Your task to perform on an android device: check data usage Image 0: 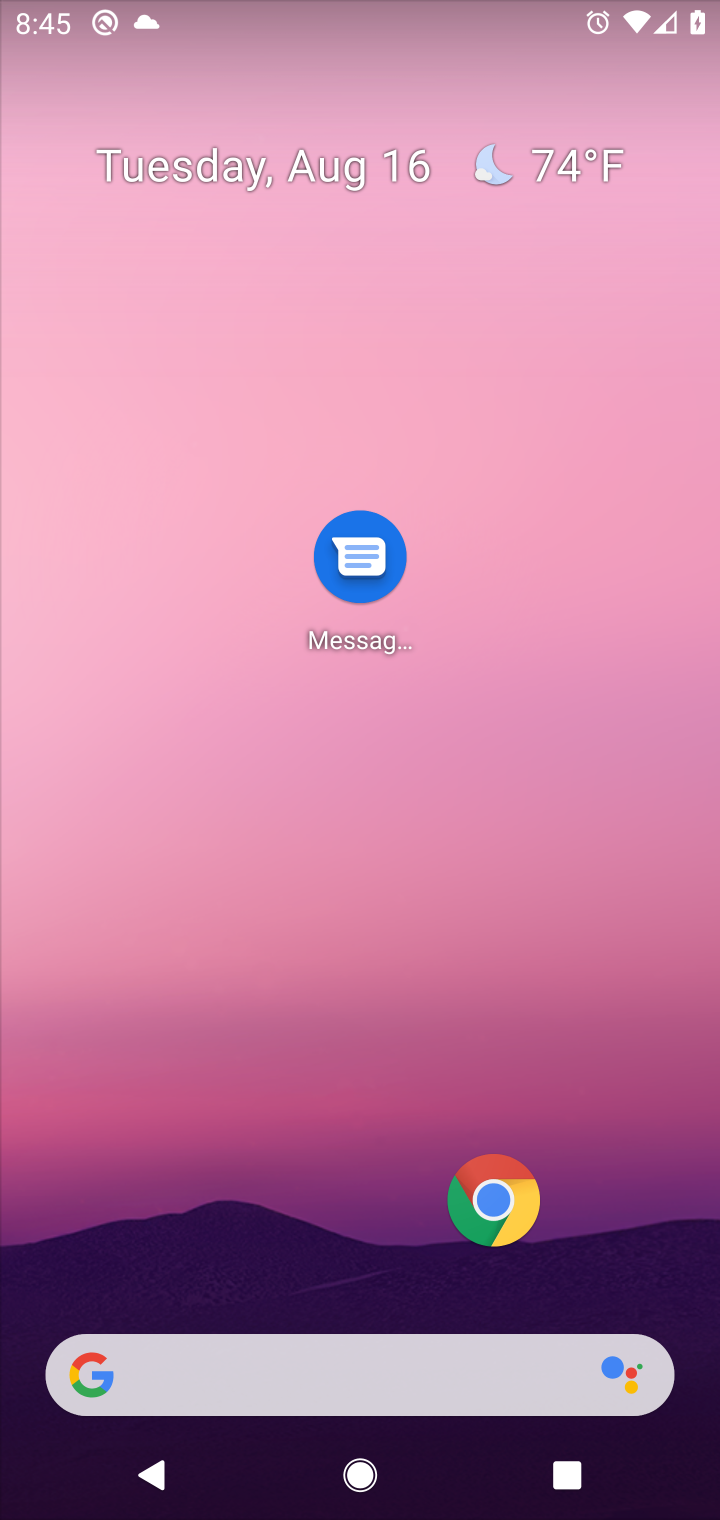
Step 0: drag from (147, 1129) to (206, 357)
Your task to perform on an android device: check data usage Image 1: 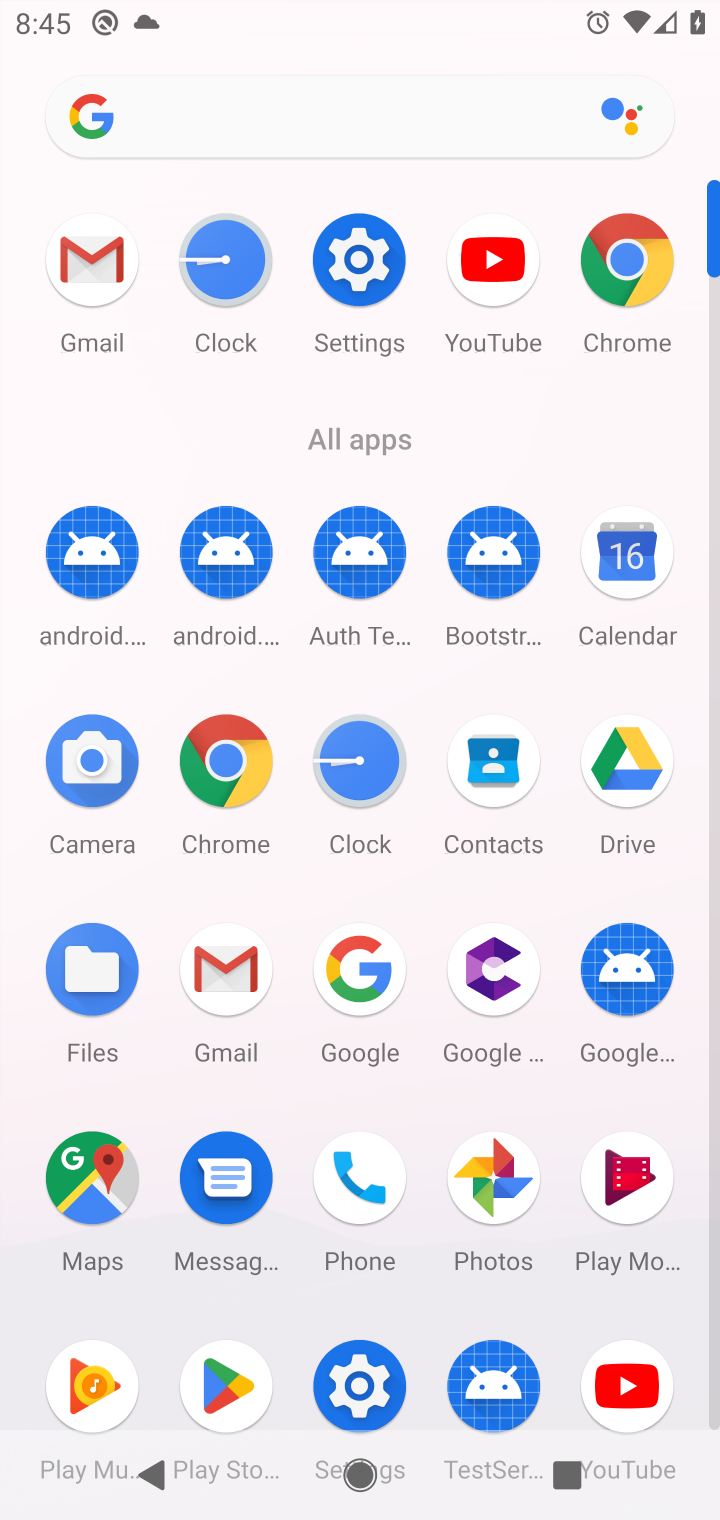
Step 1: click (347, 1387)
Your task to perform on an android device: check data usage Image 2: 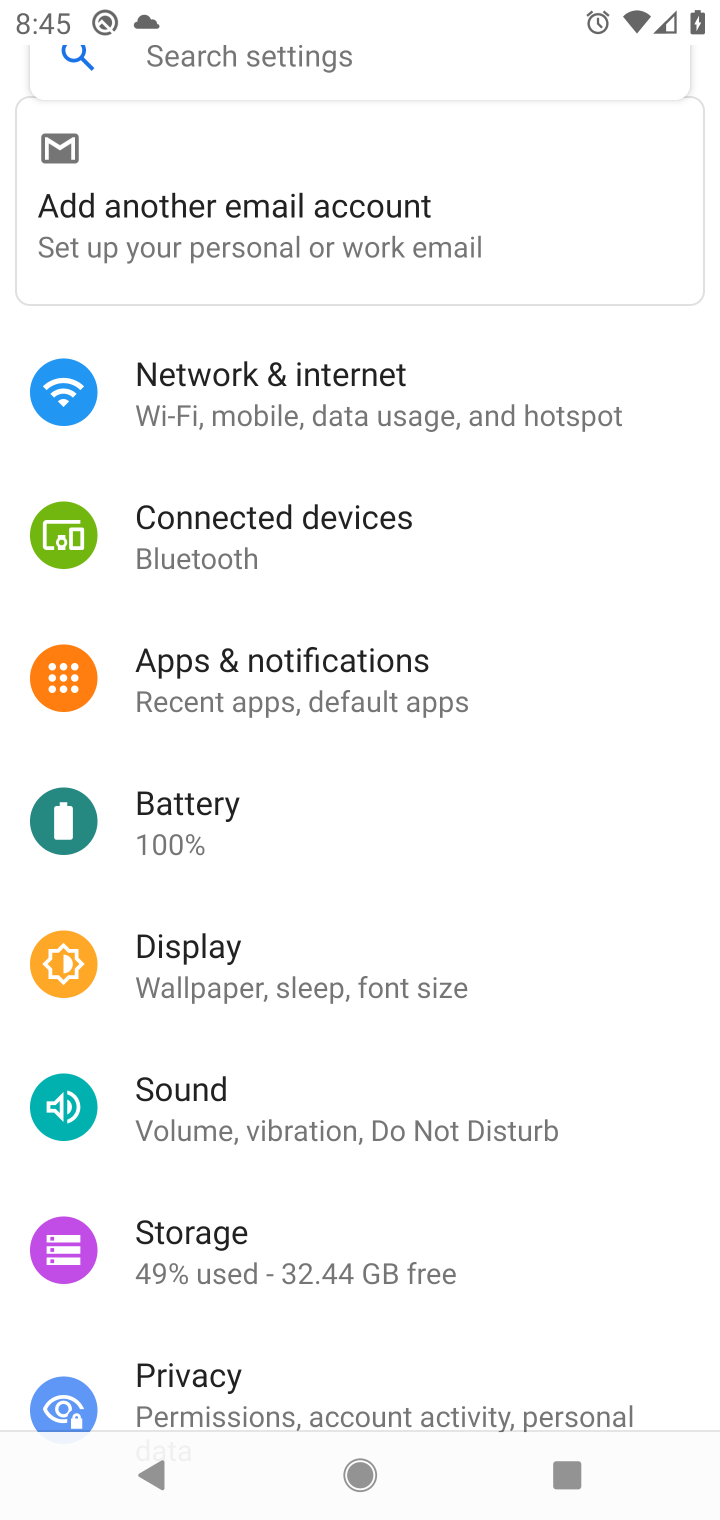
Step 2: click (311, 377)
Your task to perform on an android device: check data usage Image 3: 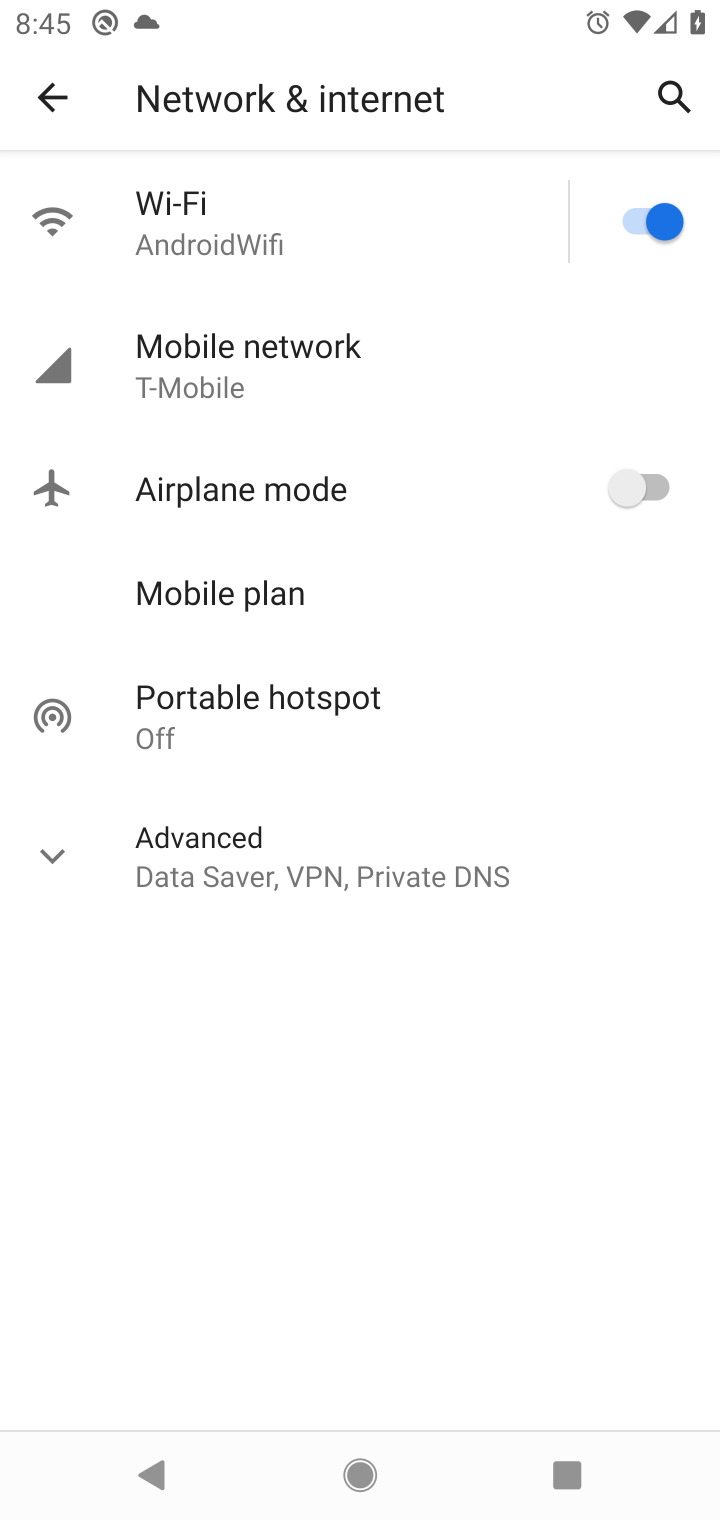
Step 3: click (205, 873)
Your task to perform on an android device: check data usage Image 4: 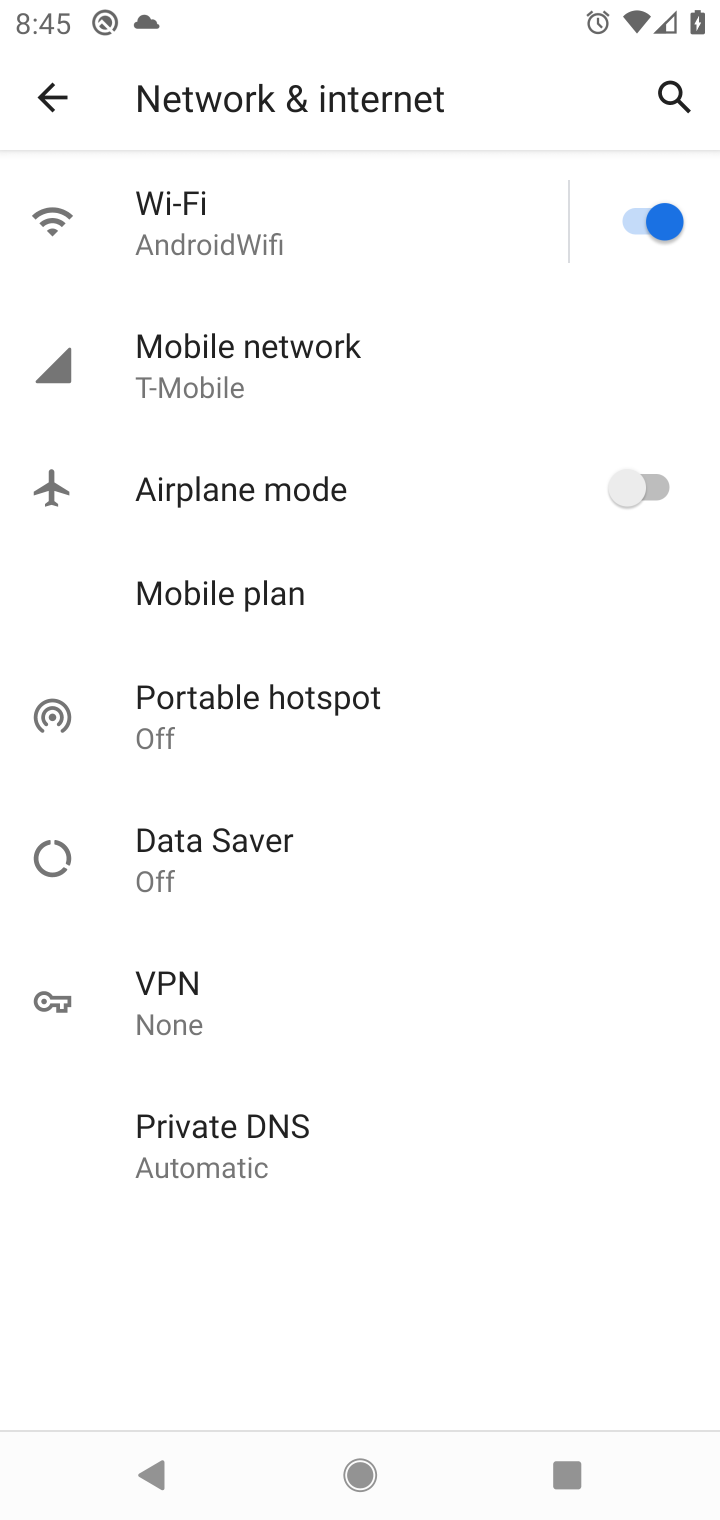
Step 4: click (212, 375)
Your task to perform on an android device: check data usage Image 5: 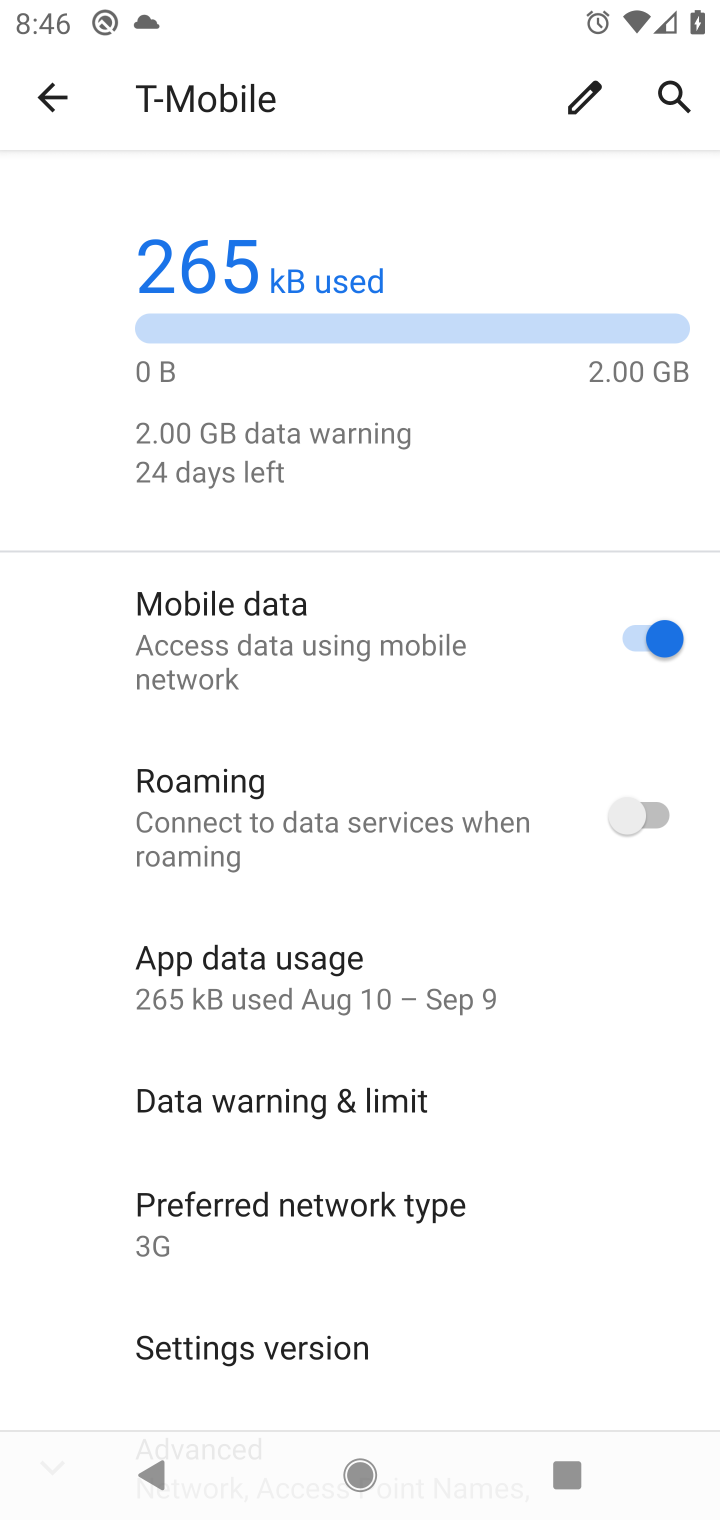
Step 5: task complete